Your task to perform on an android device: stop showing notifications on the lock screen Image 0: 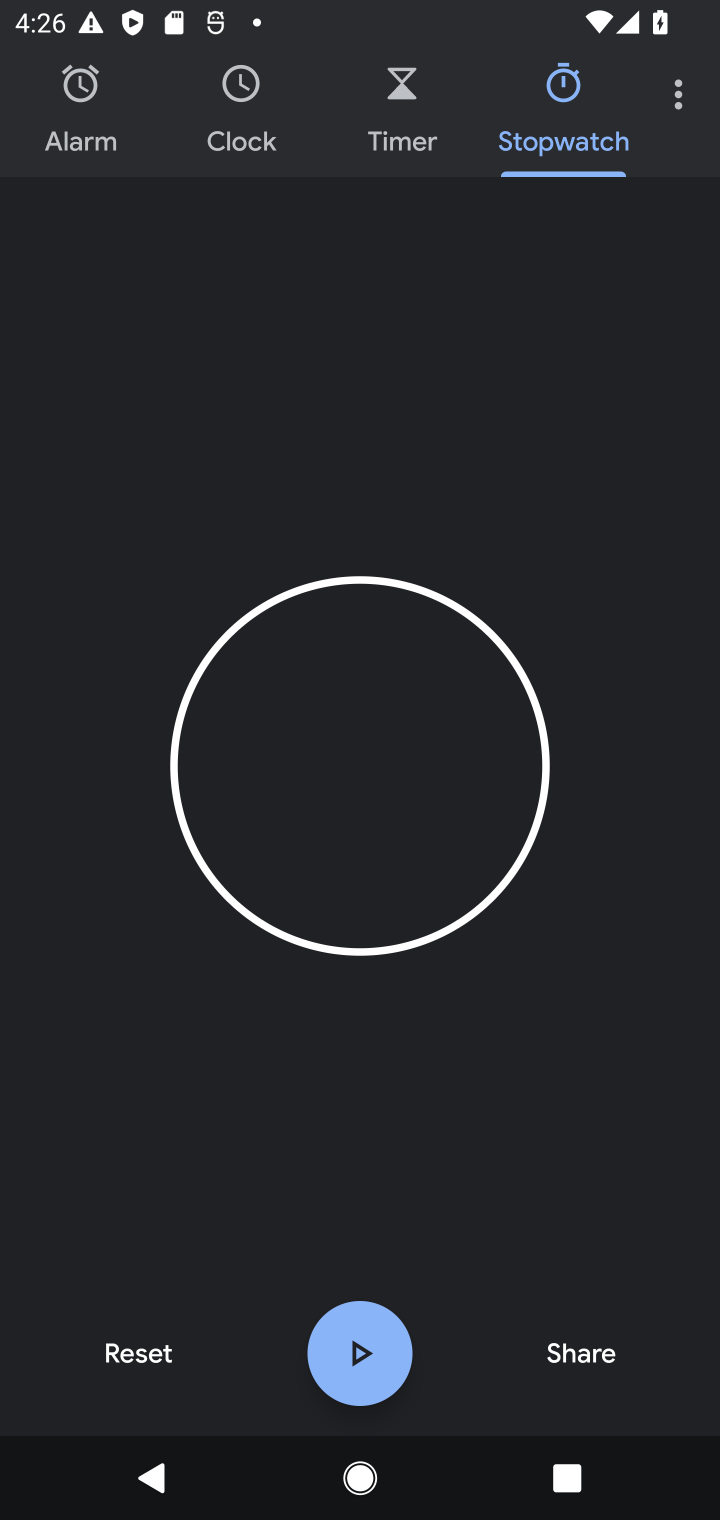
Step 0: press home button
Your task to perform on an android device: stop showing notifications on the lock screen Image 1: 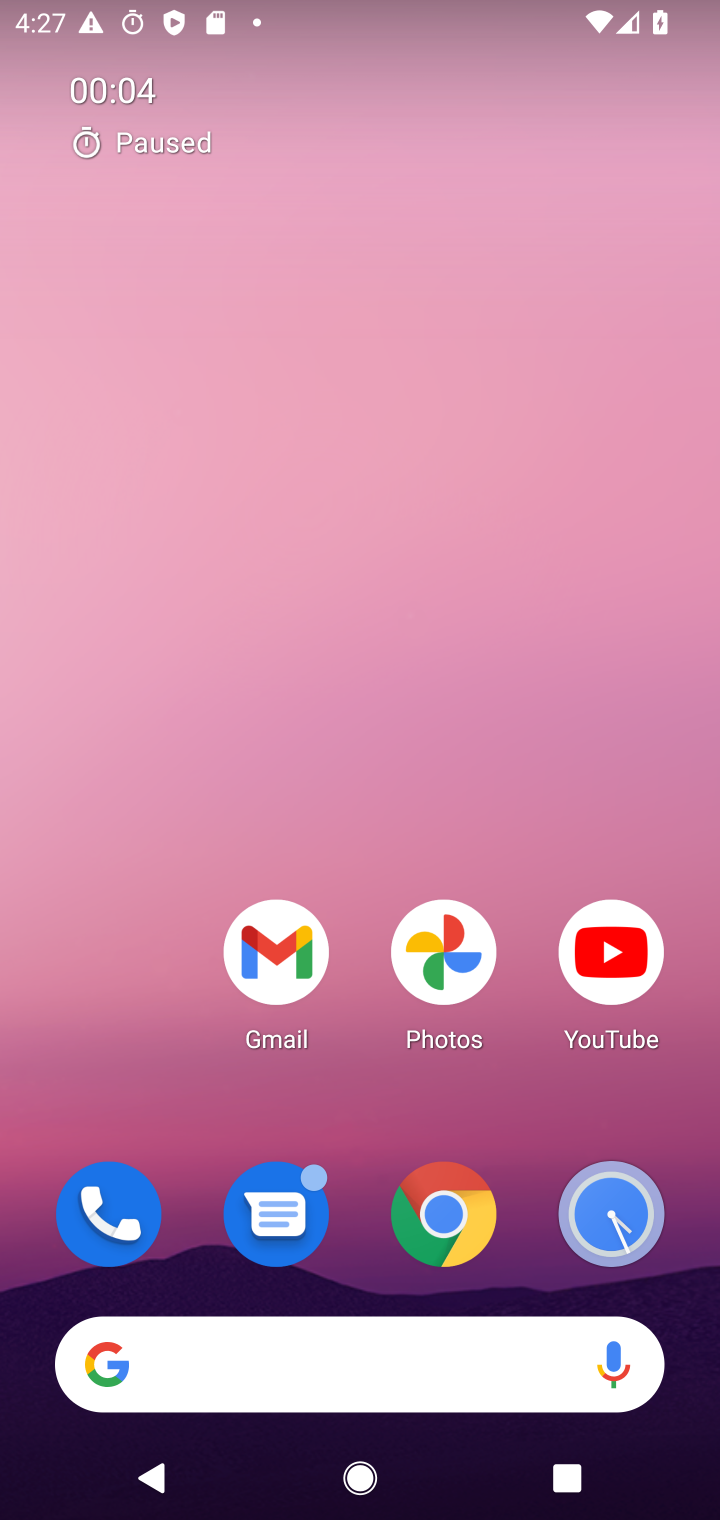
Step 1: drag from (344, 1226) to (347, 35)
Your task to perform on an android device: stop showing notifications on the lock screen Image 2: 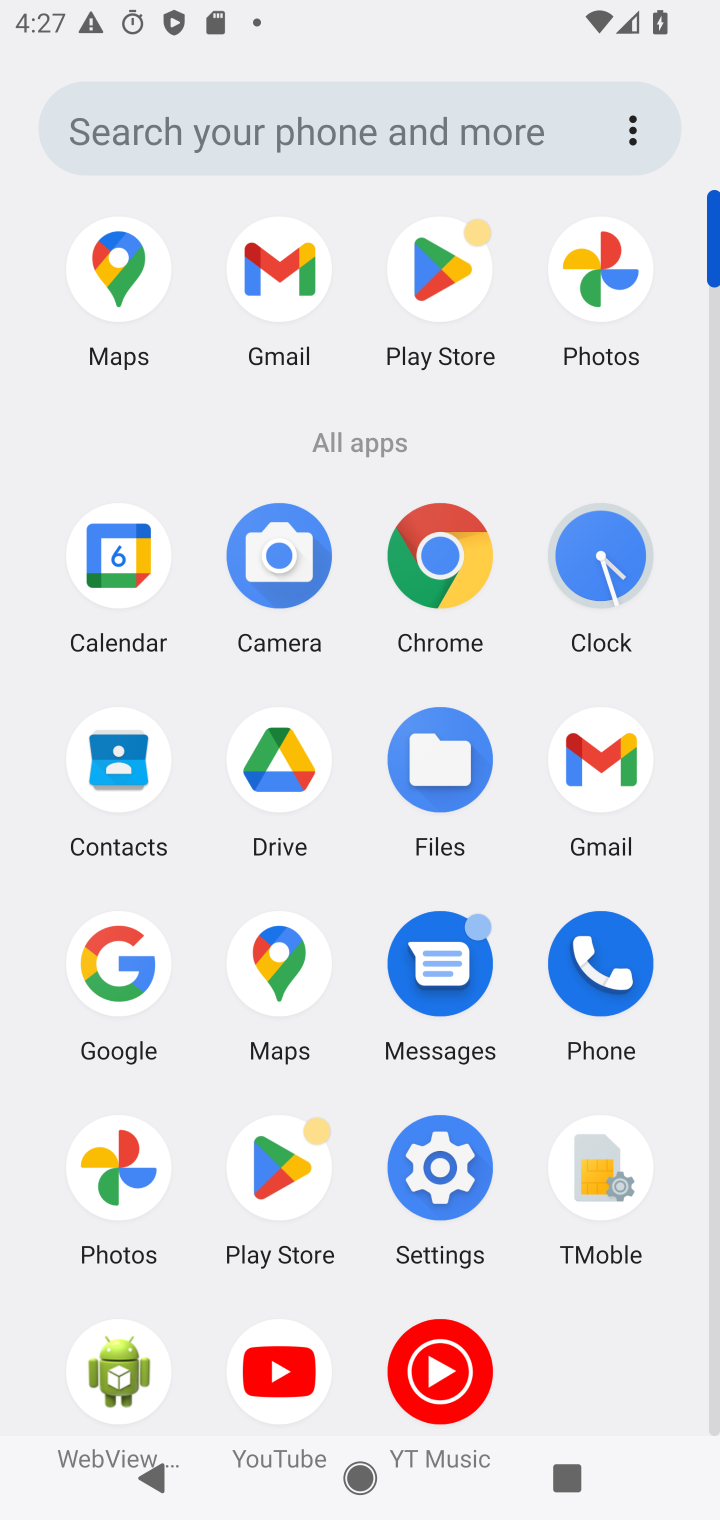
Step 2: click (430, 1171)
Your task to perform on an android device: stop showing notifications on the lock screen Image 3: 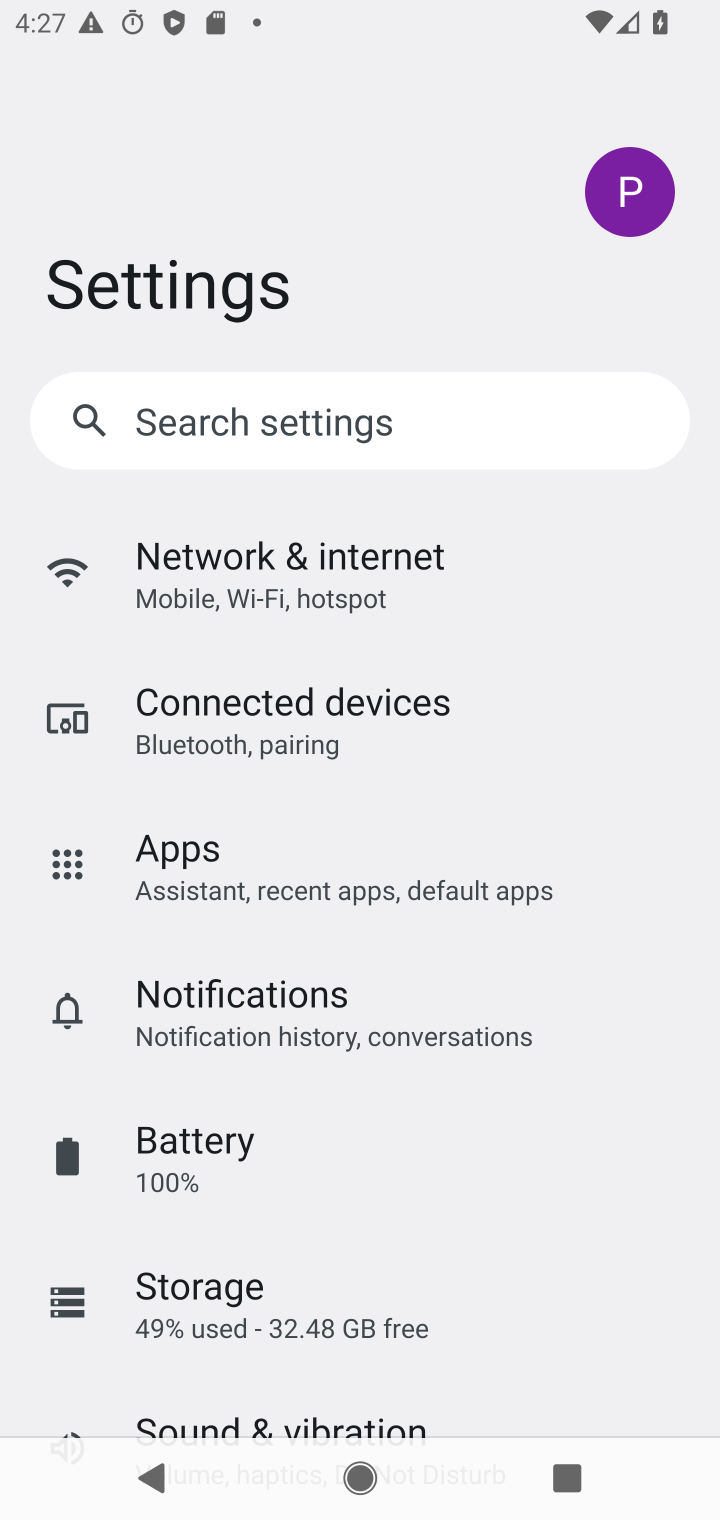
Step 3: click (256, 1007)
Your task to perform on an android device: stop showing notifications on the lock screen Image 4: 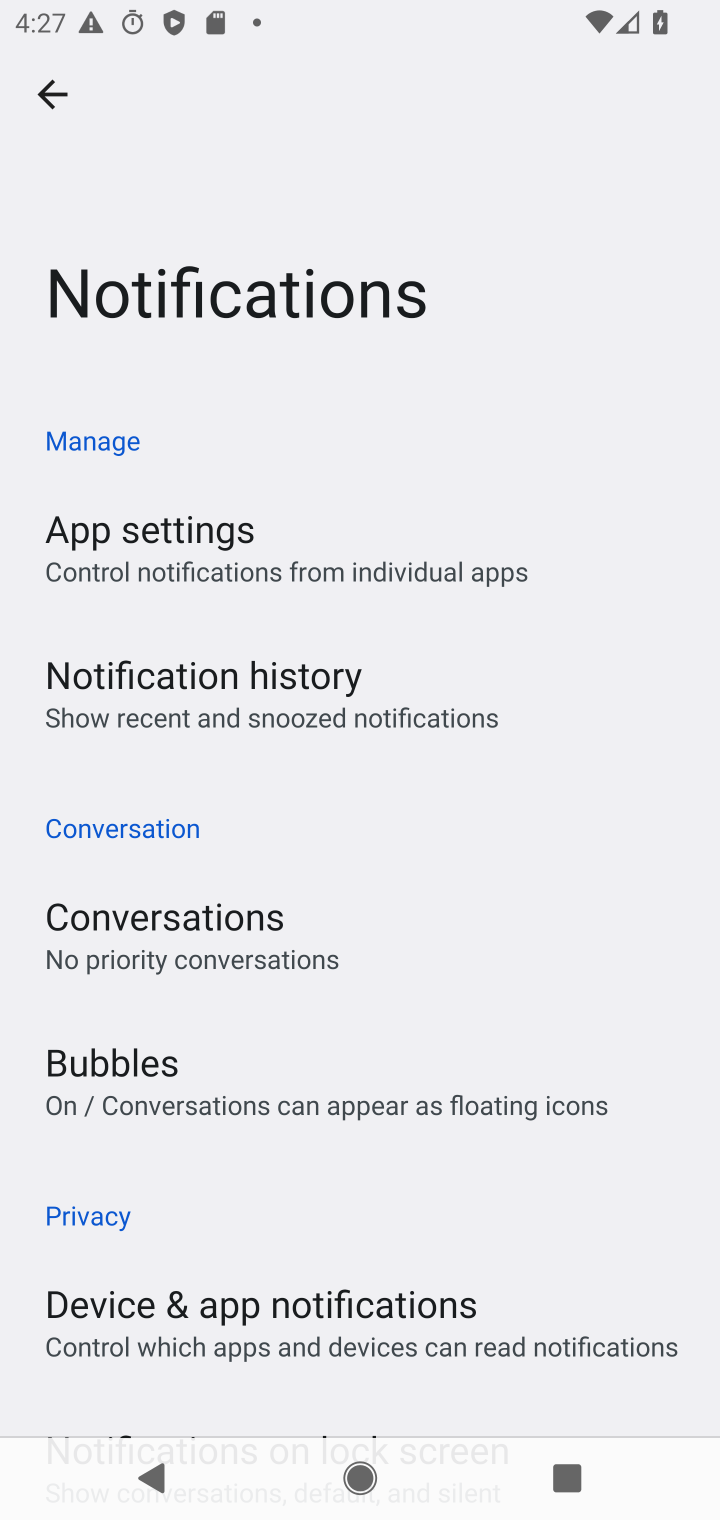
Step 4: drag from (305, 1149) to (327, 721)
Your task to perform on an android device: stop showing notifications on the lock screen Image 5: 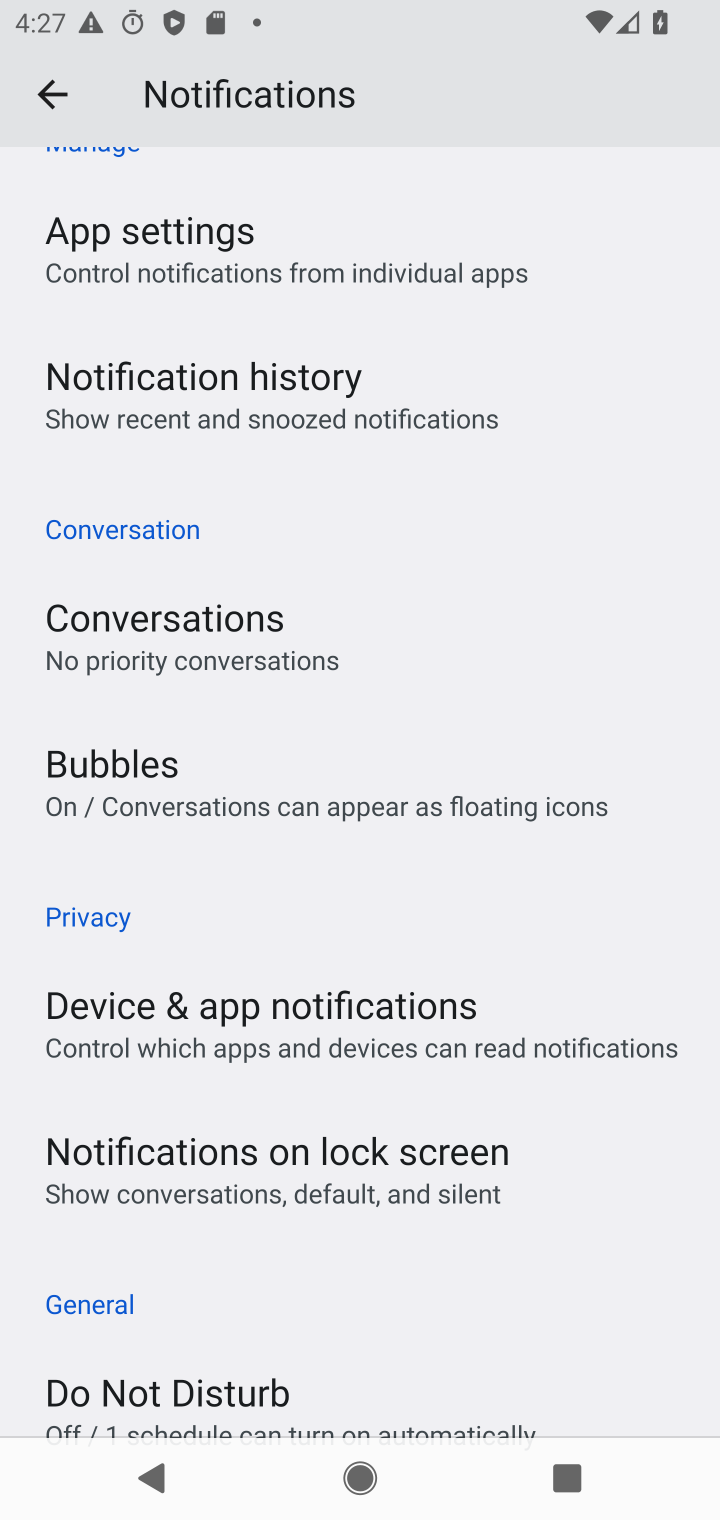
Step 5: click (312, 1159)
Your task to perform on an android device: stop showing notifications on the lock screen Image 6: 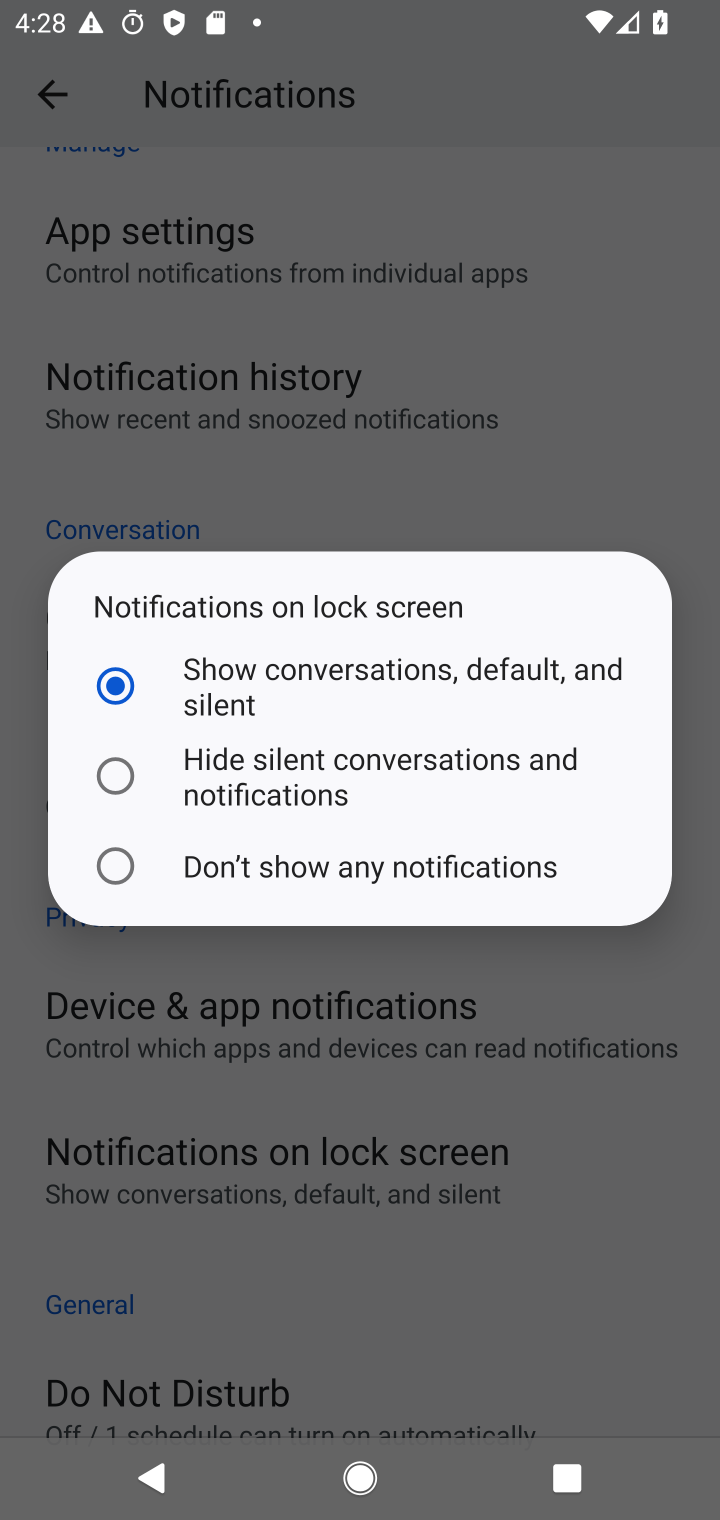
Step 6: click (115, 848)
Your task to perform on an android device: stop showing notifications on the lock screen Image 7: 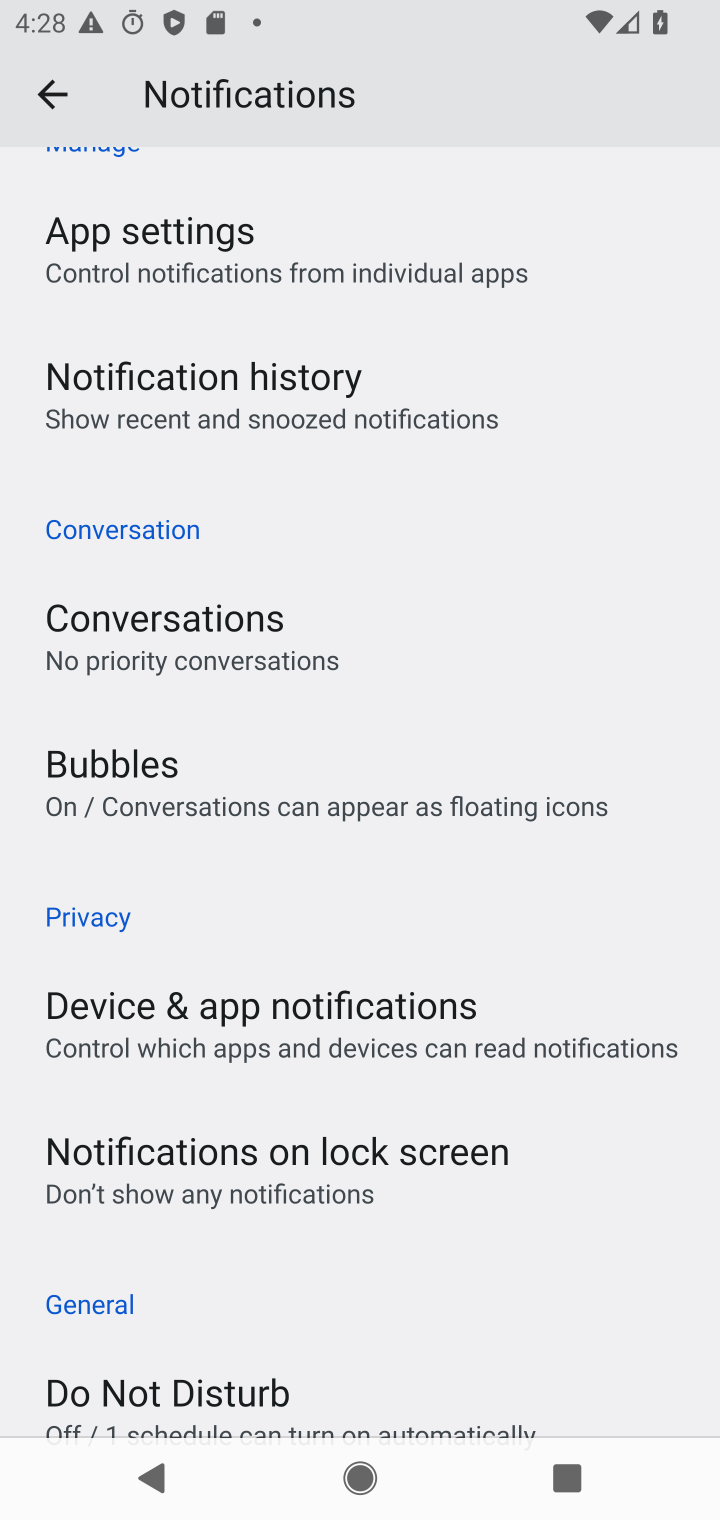
Step 7: task complete